Your task to perform on an android device: Go to ESPN.com Image 0: 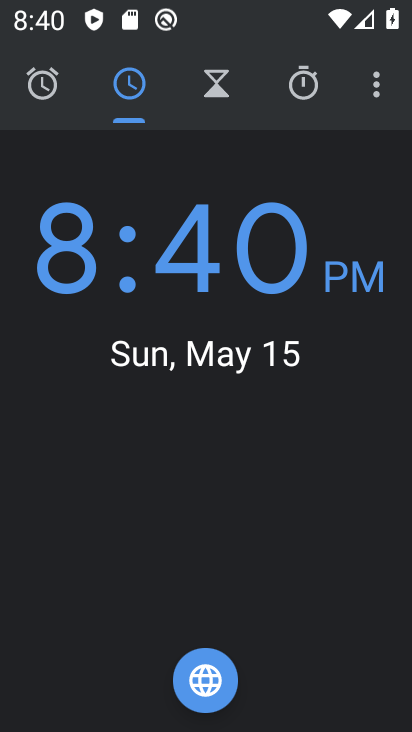
Step 0: press home button
Your task to perform on an android device: Go to ESPN.com Image 1: 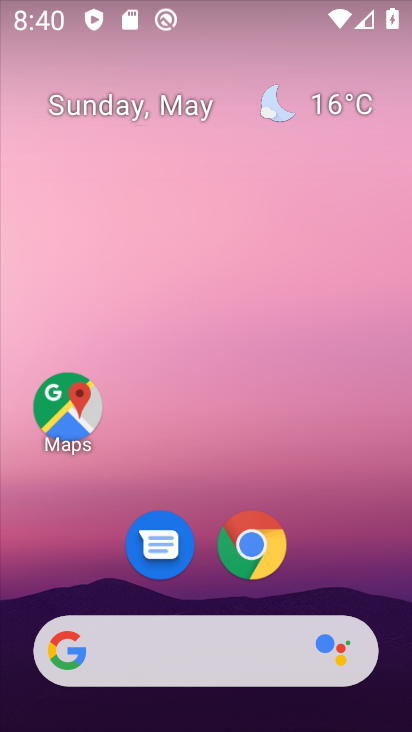
Step 1: click (267, 549)
Your task to perform on an android device: Go to ESPN.com Image 2: 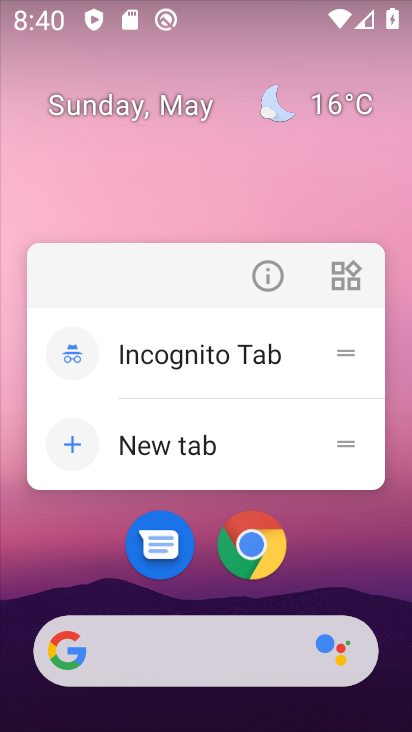
Step 2: click (274, 543)
Your task to perform on an android device: Go to ESPN.com Image 3: 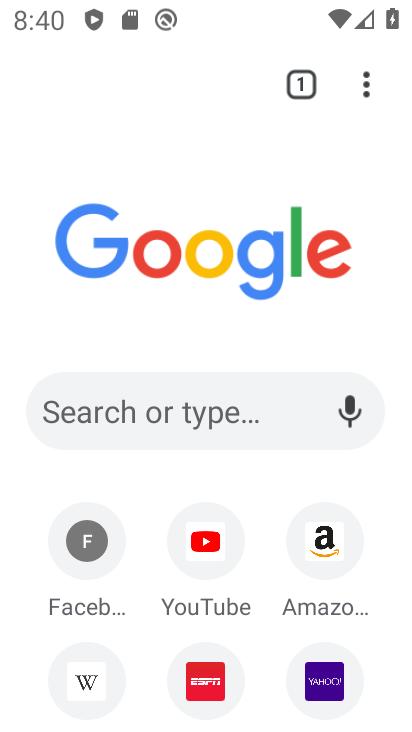
Step 3: click (170, 386)
Your task to perform on an android device: Go to ESPN.com Image 4: 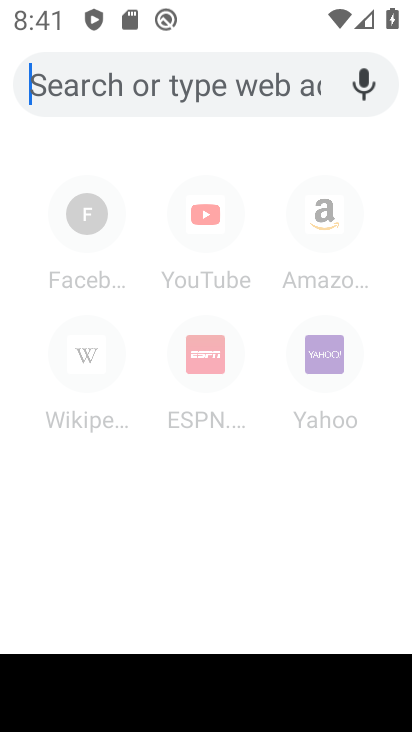
Step 4: type "ESPN.com"
Your task to perform on an android device: Go to ESPN.com Image 5: 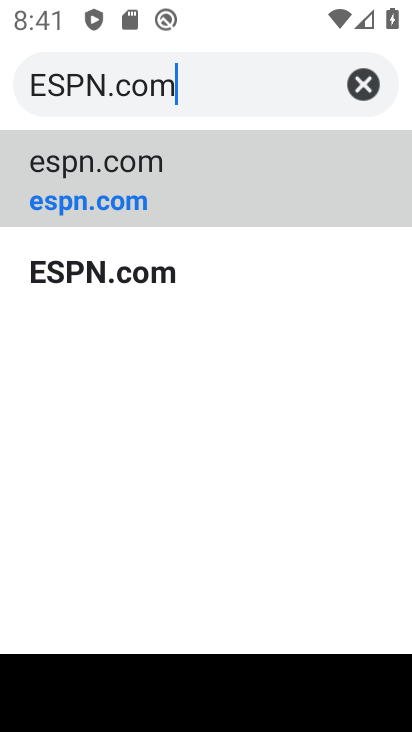
Step 5: click (112, 201)
Your task to perform on an android device: Go to ESPN.com Image 6: 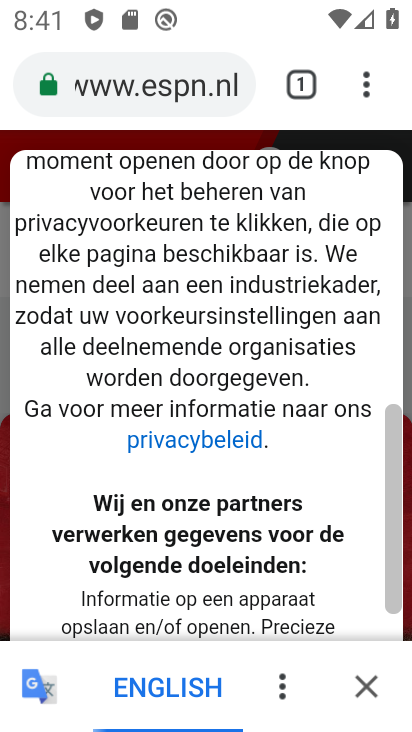
Step 6: task complete